Your task to perform on an android device: Find coffee shops on Maps Image 0: 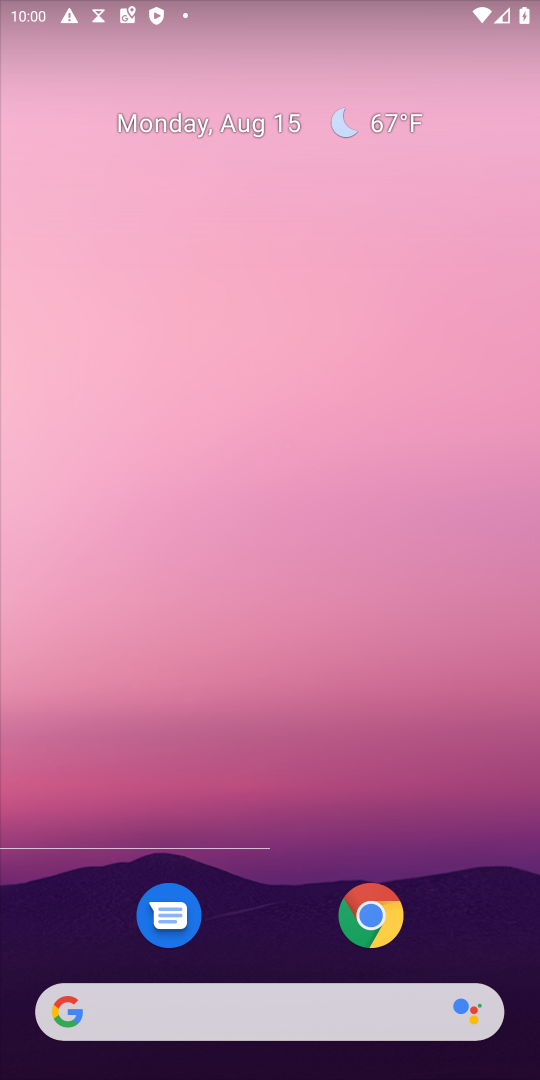
Step 0: press home button
Your task to perform on an android device: Find coffee shops on Maps Image 1: 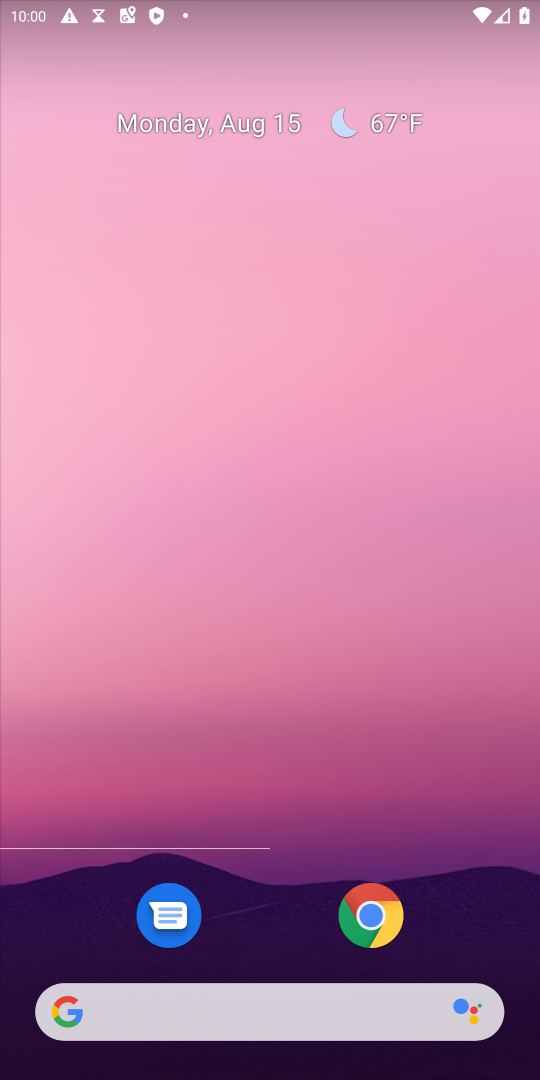
Step 1: drag from (289, 912) to (324, 141)
Your task to perform on an android device: Find coffee shops on Maps Image 2: 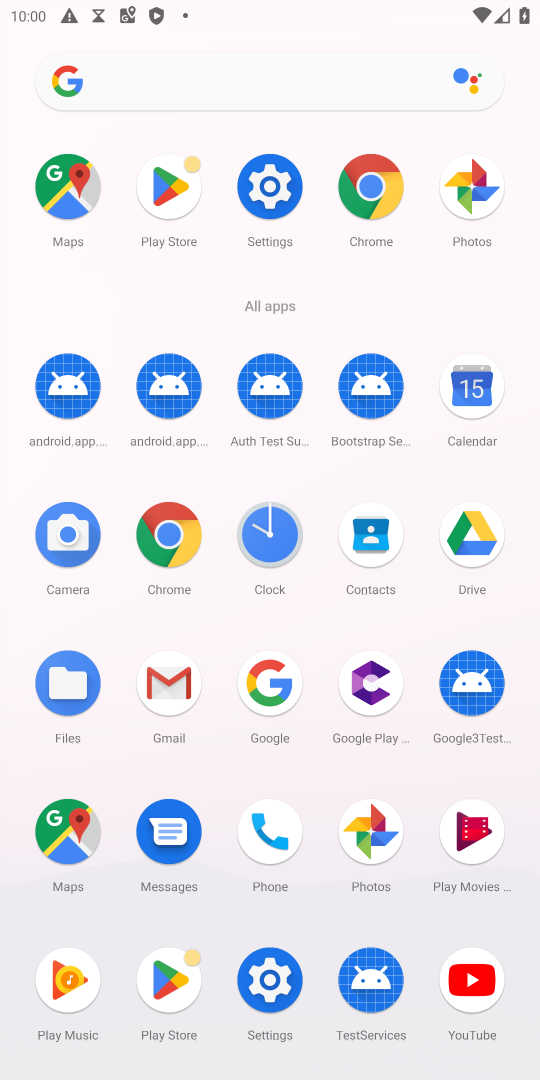
Step 2: click (65, 829)
Your task to perform on an android device: Find coffee shops on Maps Image 3: 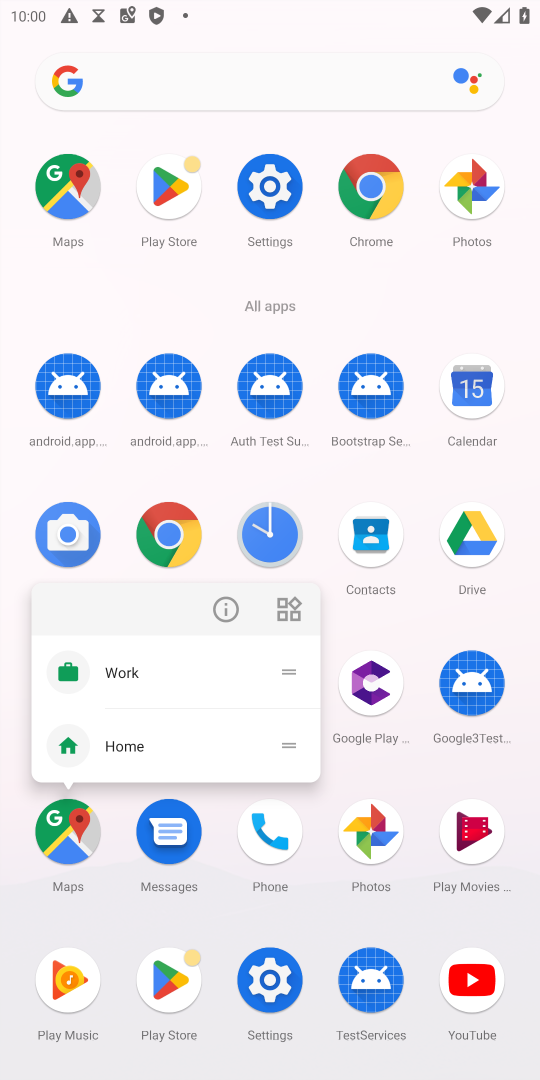
Step 3: click (66, 834)
Your task to perform on an android device: Find coffee shops on Maps Image 4: 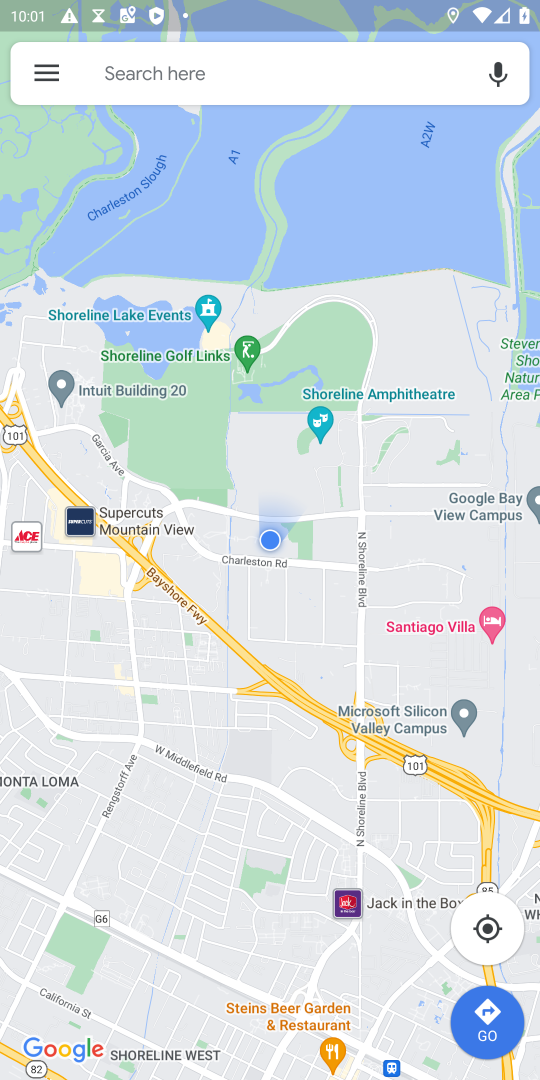
Step 4: click (163, 76)
Your task to perform on an android device: Find coffee shops on Maps Image 5: 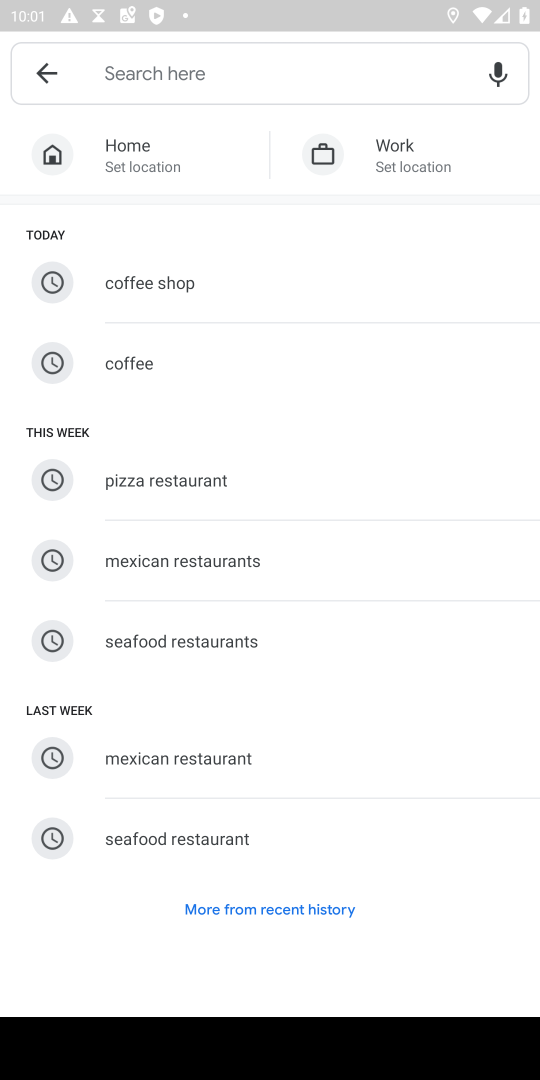
Step 5: click (120, 274)
Your task to perform on an android device: Find coffee shops on Maps Image 6: 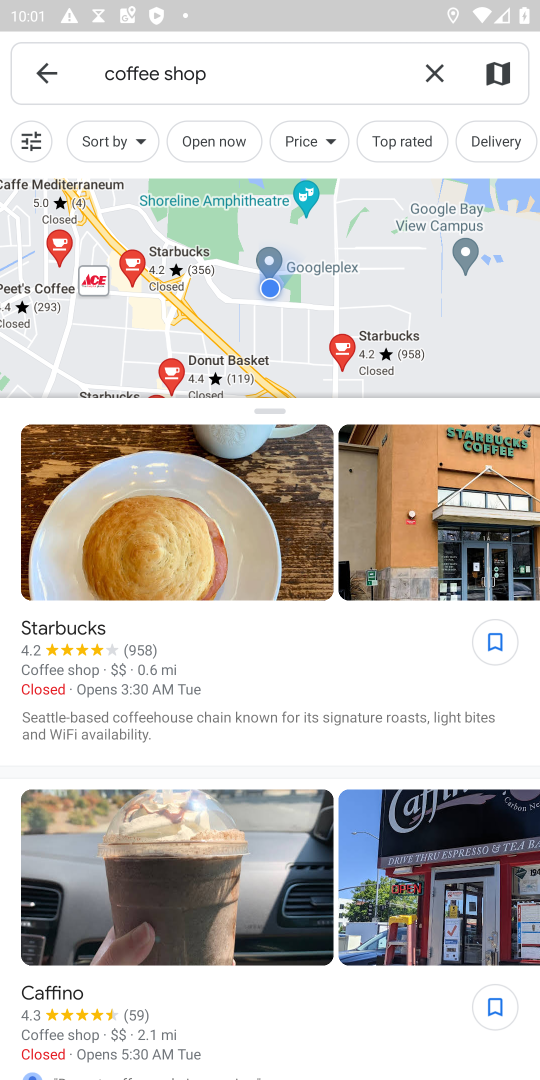
Step 6: task complete